Your task to perform on an android device: Go to network settings Image 0: 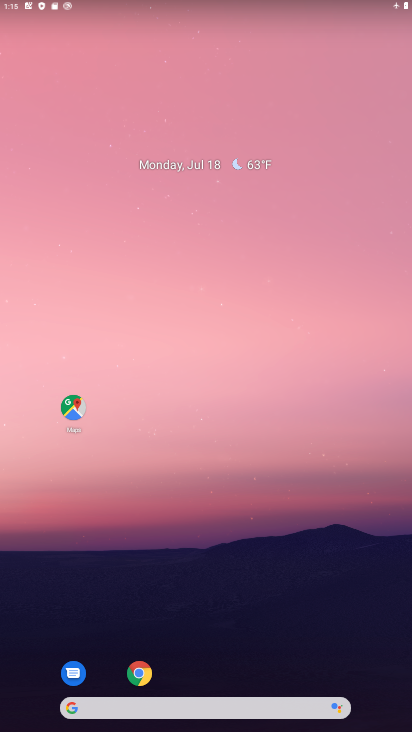
Step 0: drag from (322, 654) to (274, 220)
Your task to perform on an android device: Go to network settings Image 1: 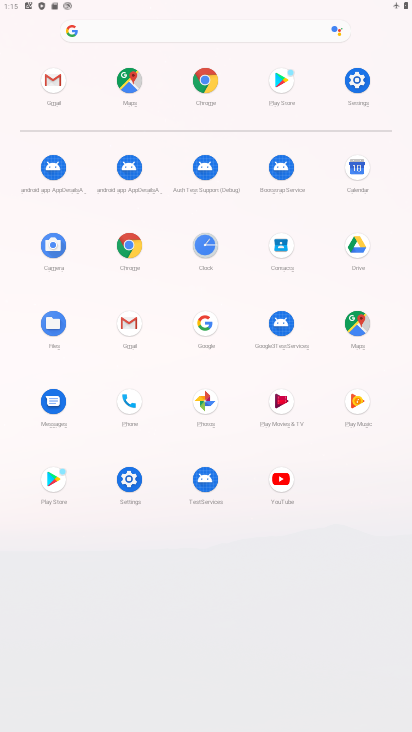
Step 1: click (360, 74)
Your task to perform on an android device: Go to network settings Image 2: 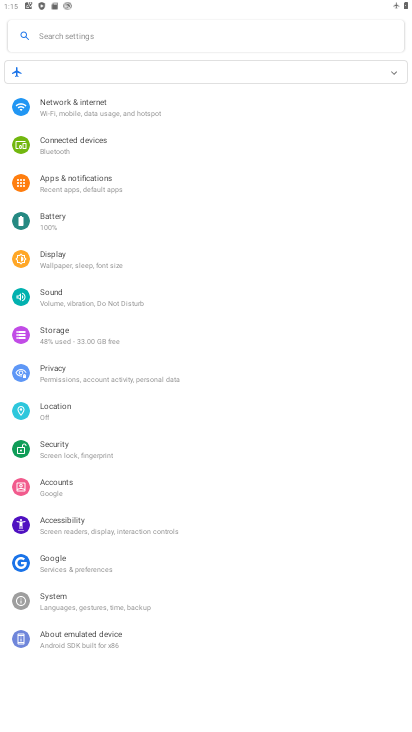
Step 2: click (155, 103)
Your task to perform on an android device: Go to network settings Image 3: 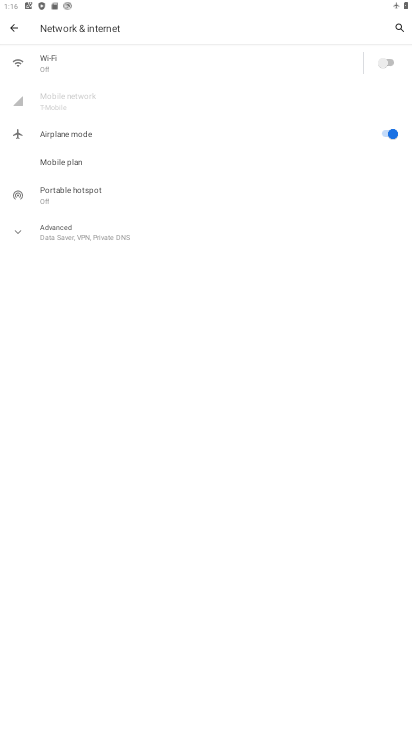
Step 3: task complete